Your task to perform on an android device: toggle javascript in the chrome app Image 0: 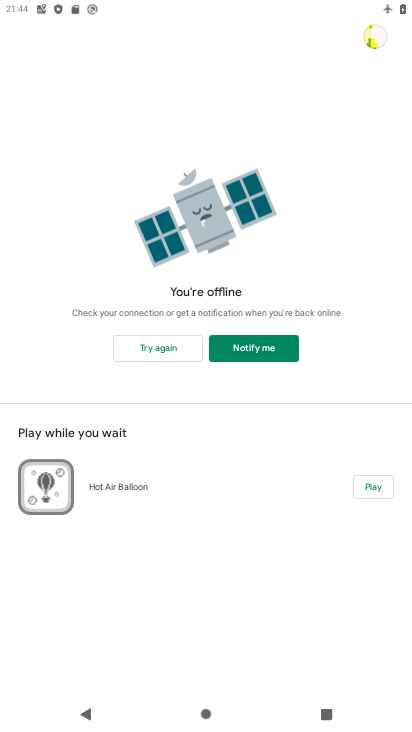
Step 0: press home button
Your task to perform on an android device: toggle javascript in the chrome app Image 1: 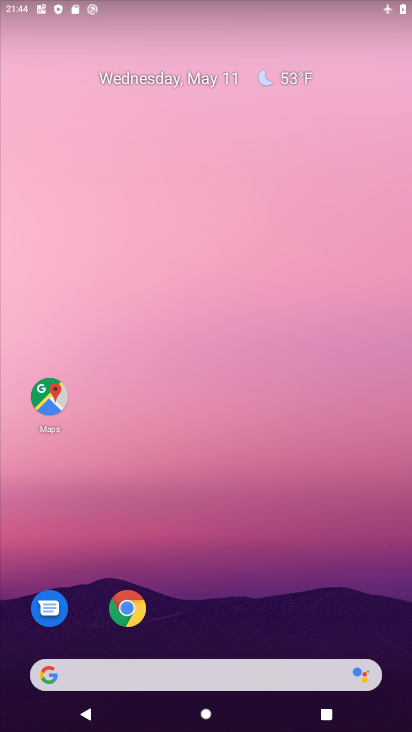
Step 1: click (131, 613)
Your task to perform on an android device: toggle javascript in the chrome app Image 2: 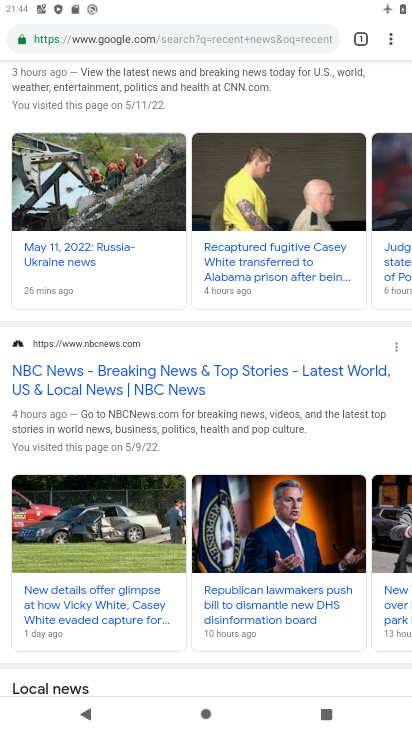
Step 2: drag from (394, 33) to (257, 432)
Your task to perform on an android device: toggle javascript in the chrome app Image 3: 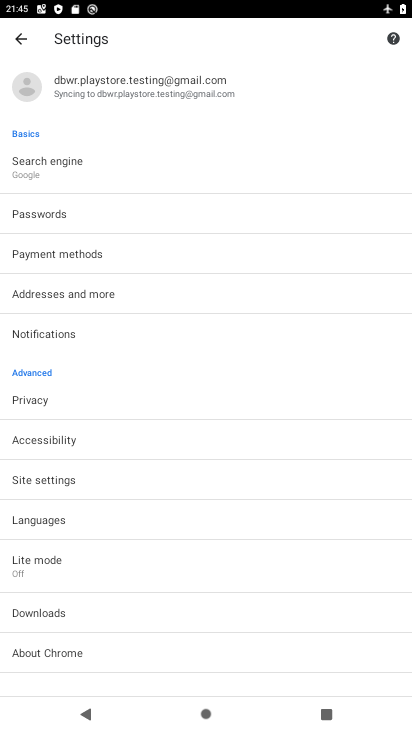
Step 3: click (90, 481)
Your task to perform on an android device: toggle javascript in the chrome app Image 4: 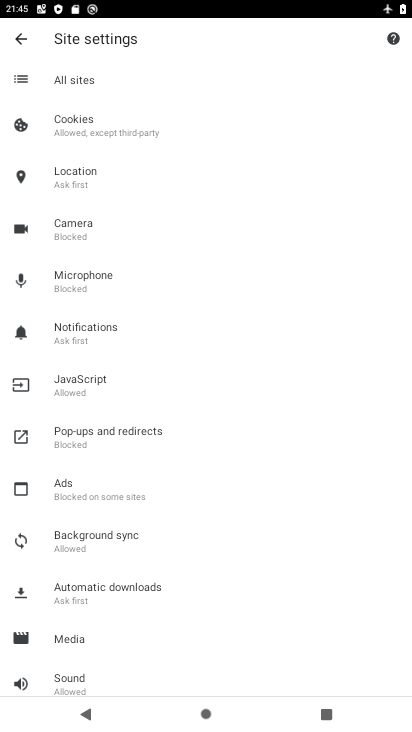
Step 4: click (134, 385)
Your task to perform on an android device: toggle javascript in the chrome app Image 5: 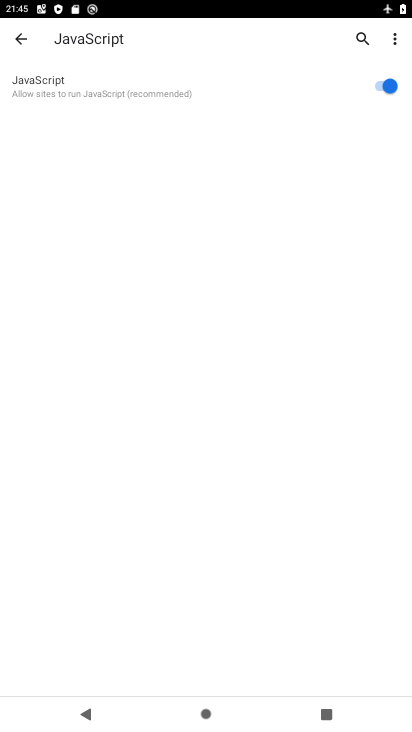
Step 5: click (383, 84)
Your task to perform on an android device: toggle javascript in the chrome app Image 6: 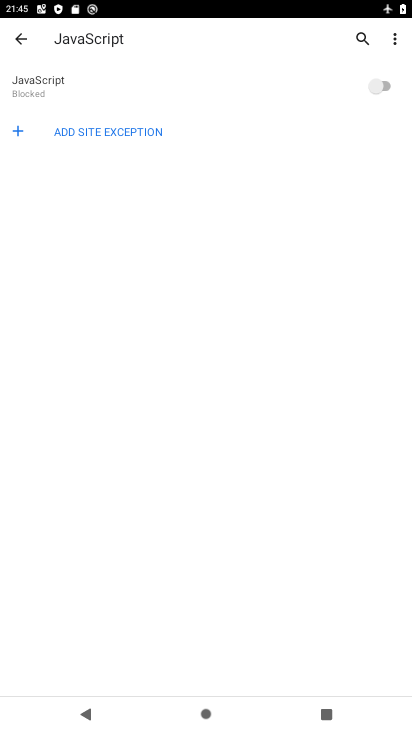
Step 6: task complete